Your task to perform on an android device: toggle notifications settings in the gmail app Image 0: 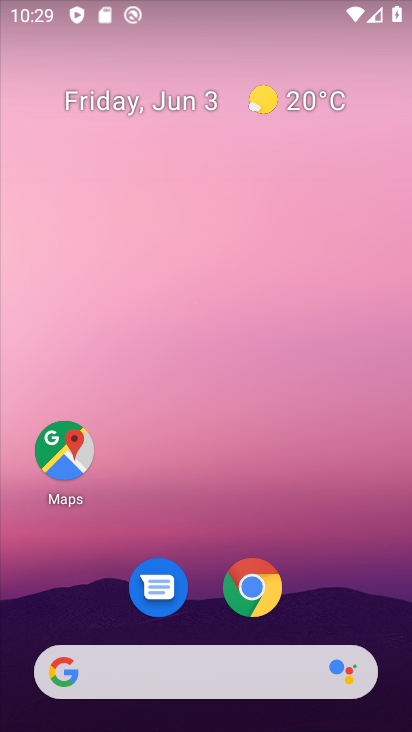
Step 0: drag from (357, 608) to (233, 1)
Your task to perform on an android device: toggle notifications settings in the gmail app Image 1: 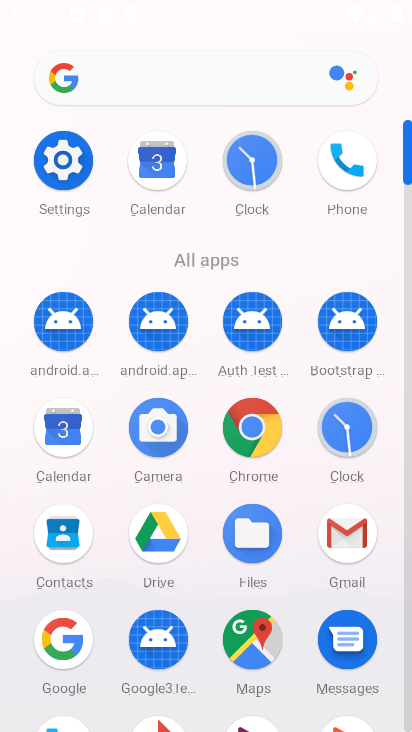
Step 1: click (350, 523)
Your task to perform on an android device: toggle notifications settings in the gmail app Image 2: 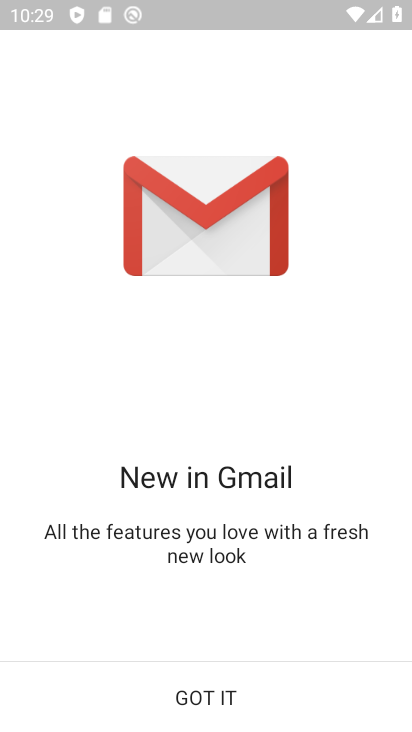
Step 2: click (240, 704)
Your task to perform on an android device: toggle notifications settings in the gmail app Image 3: 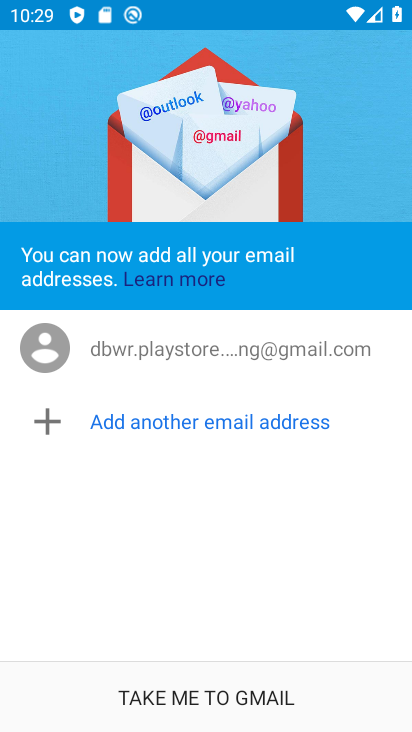
Step 3: click (262, 700)
Your task to perform on an android device: toggle notifications settings in the gmail app Image 4: 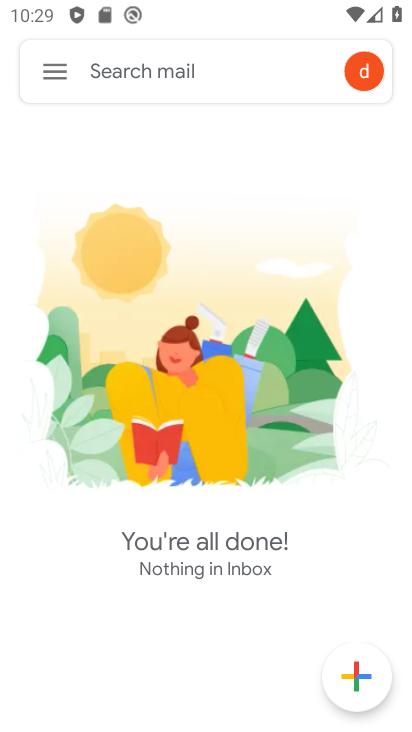
Step 4: drag from (261, 569) to (196, 2)
Your task to perform on an android device: toggle notifications settings in the gmail app Image 5: 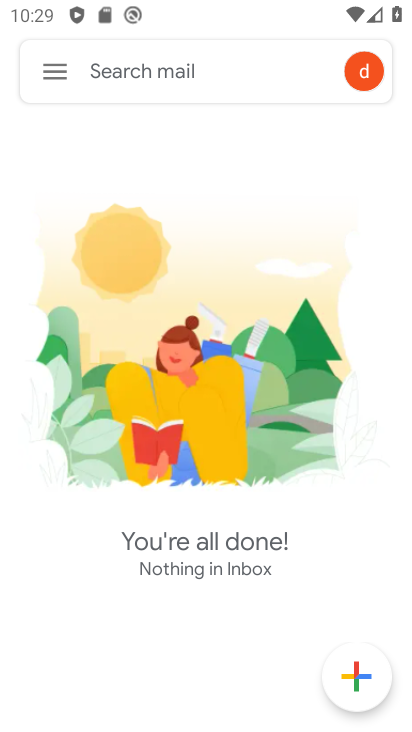
Step 5: click (48, 68)
Your task to perform on an android device: toggle notifications settings in the gmail app Image 6: 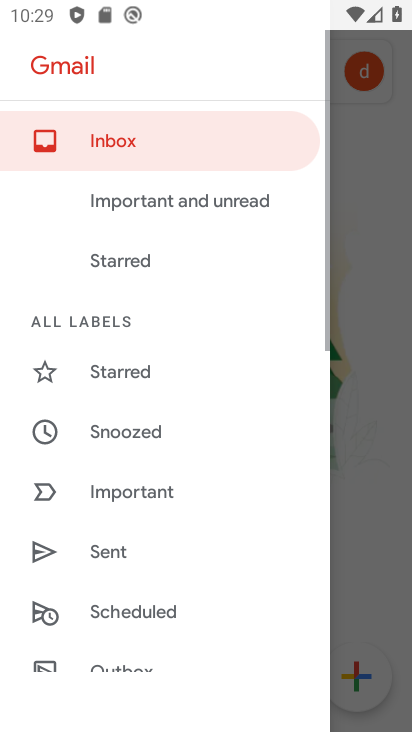
Step 6: drag from (242, 567) to (201, 105)
Your task to perform on an android device: toggle notifications settings in the gmail app Image 7: 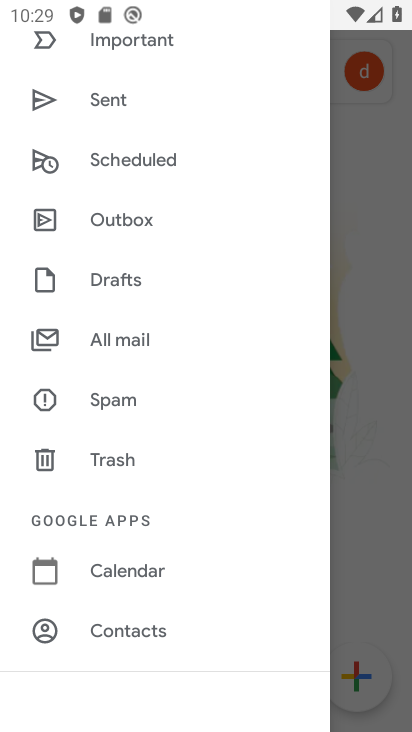
Step 7: drag from (204, 574) to (189, 192)
Your task to perform on an android device: toggle notifications settings in the gmail app Image 8: 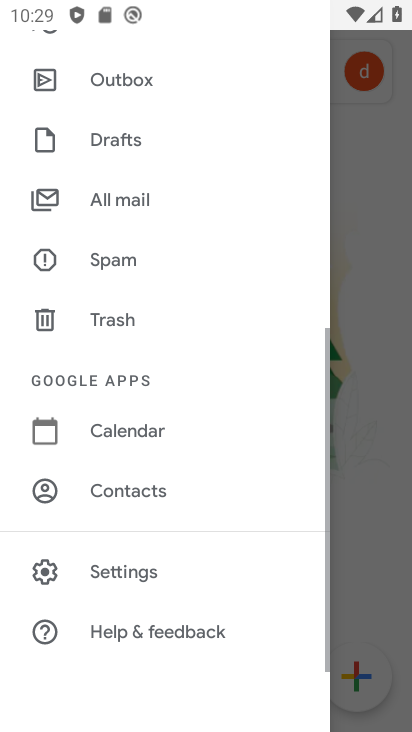
Step 8: click (139, 580)
Your task to perform on an android device: toggle notifications settings in the gmail app Image 9: 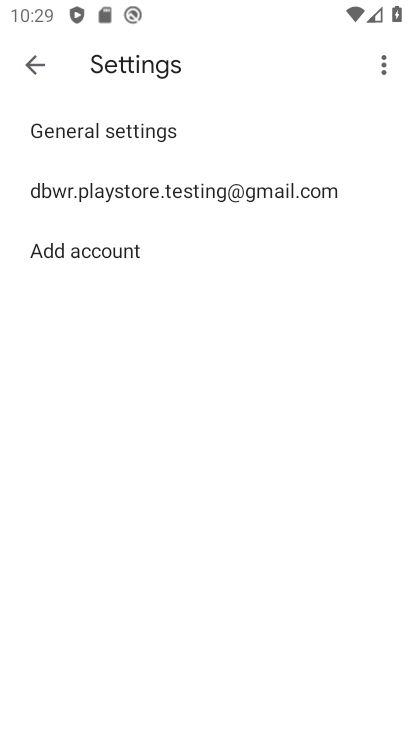
Step 9: click (148, 216)
Your task to perform on an android device: toggle notifications settings in the gmail app Image 10: 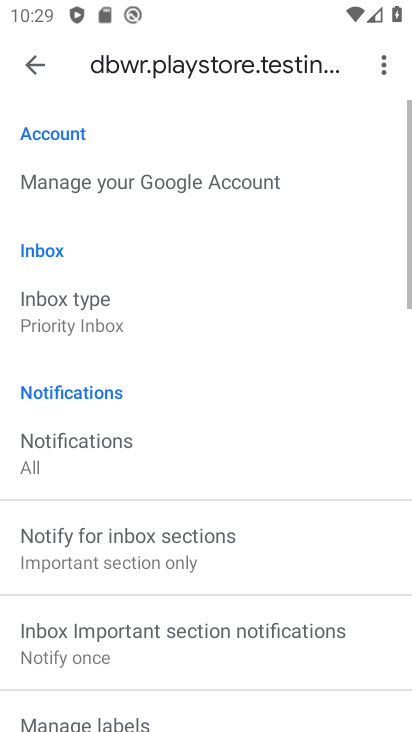
Step 10: drag from (217, 608) to (234, 285)
Your task to perform on an android device: toggle notifications settings in the gmail app Image 11: 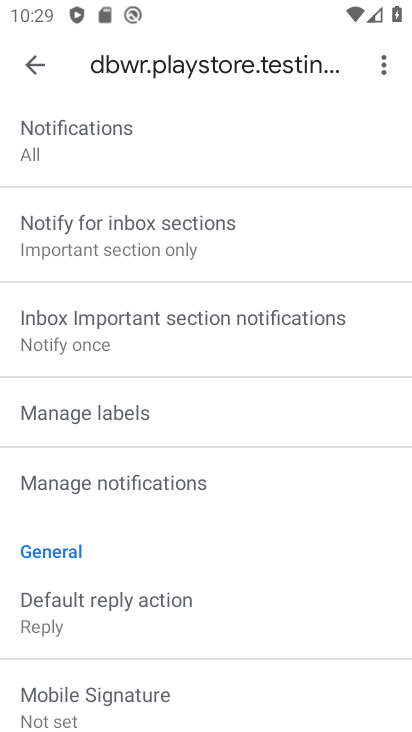
Step 11: click (182, 164)
Your task to perform on an android device: toggle notifications settings in the gmail app Image 12: 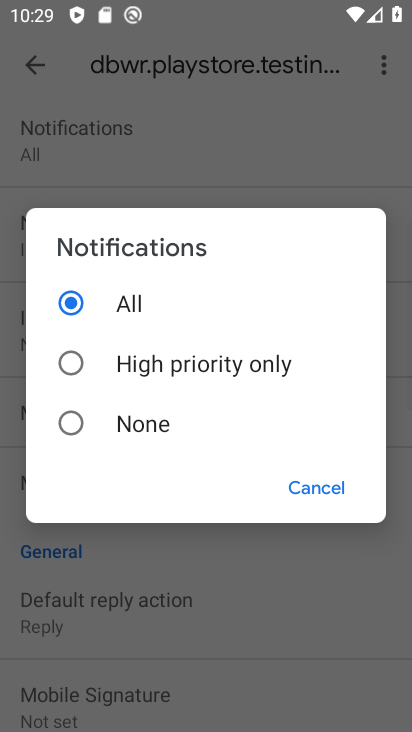
Step 12: click (137, 426)
Your task to perform on an android device: toggle notifications settings in the gmail app Image 13: 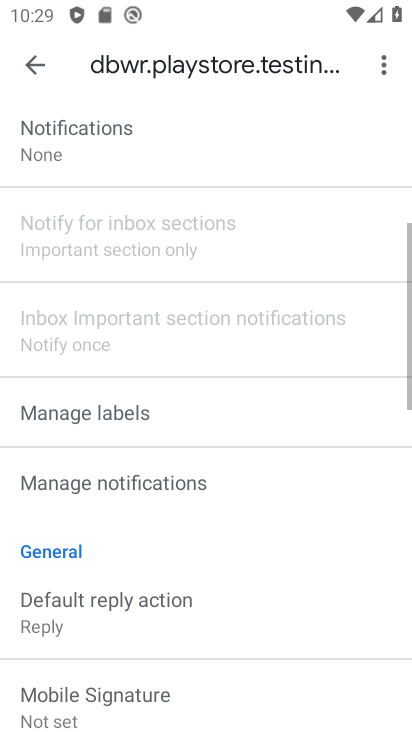
Step 13: task complete